Your task to perform on an android device: remove spam from my inbox in the gmail app Image 0: 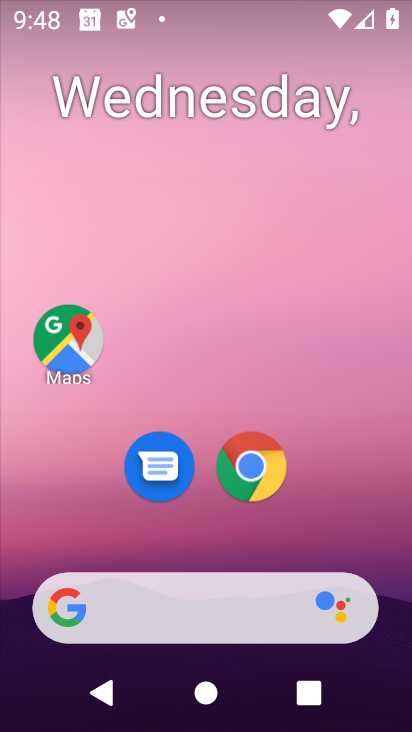
Step 0: drag from (342, 539) to (343, 202)
Your task to perform on an android device: remove spam from my inbox in the gmail app Image 1: 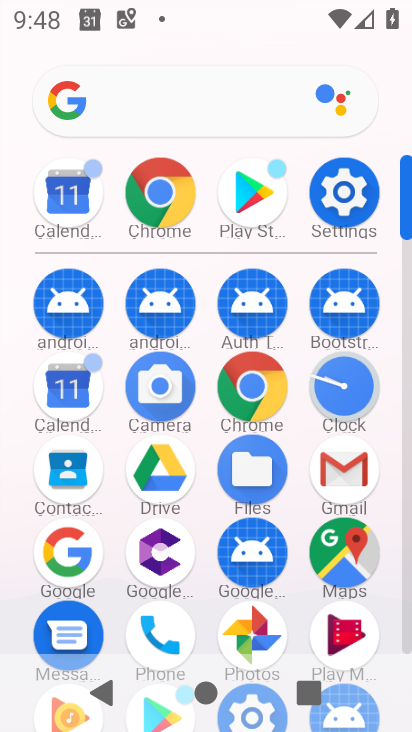
Step 1: click (347, 460)
Your task to perform on an android device: remove spam from my inbox in the gmail app Image 2: 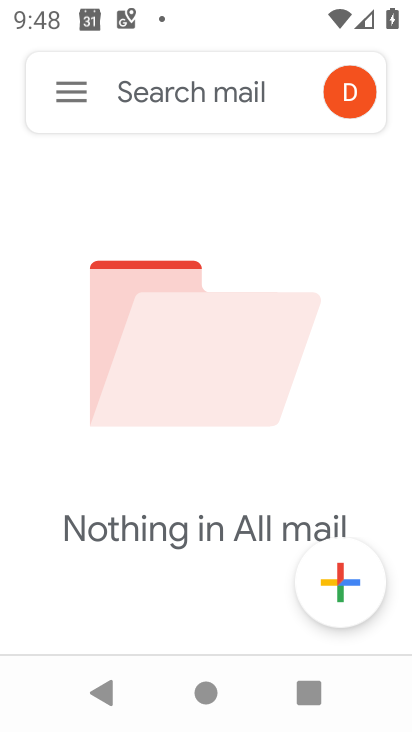
Step 2: click (56, 88)
Your task to perform on an android device: remove spam from my inbox in the gmail app Image 3: 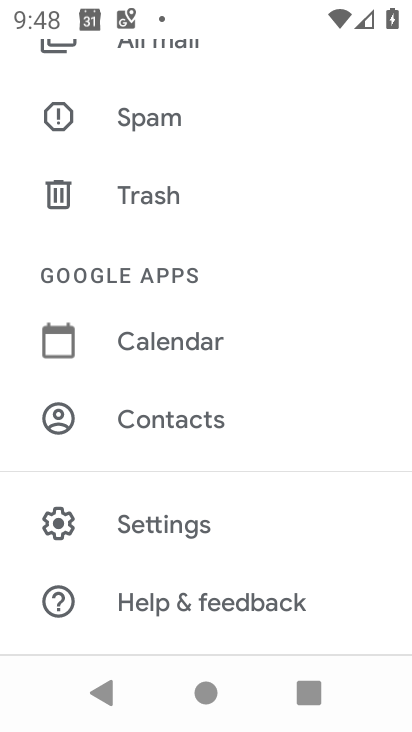
Step 3: click (154, 117)
Your task to perform on an android device: remove spam from my inbox in the gmail app Image 4: 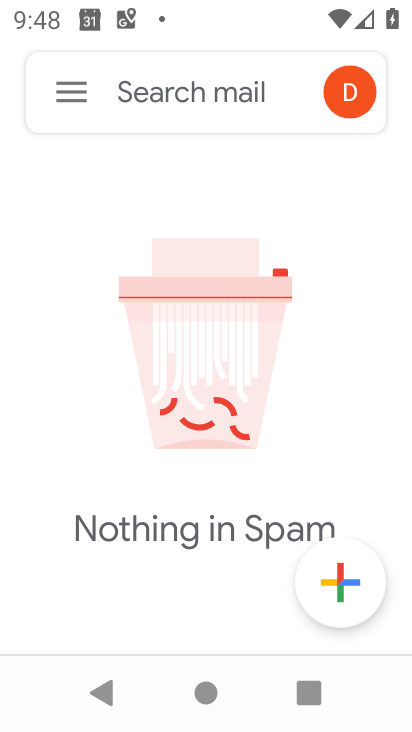
Step 4: task complete